Your task to perform on an android device: Open Google Maps and go to "Timeline" Image 0: 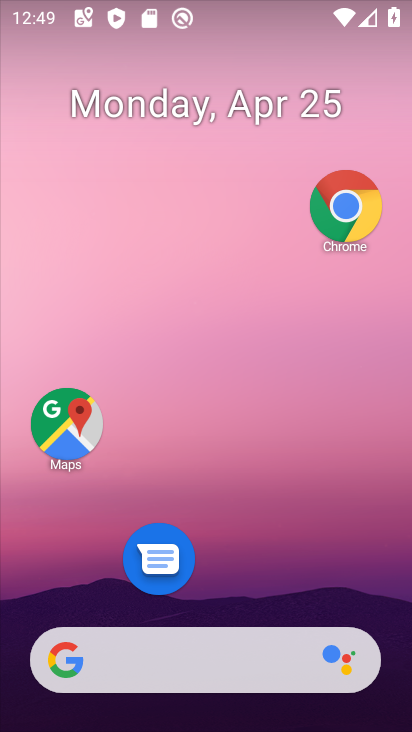
Step 0: click (71, 414)
Your task to perform on an android device: Open Google Maps and go to "Timeline" Image 1: 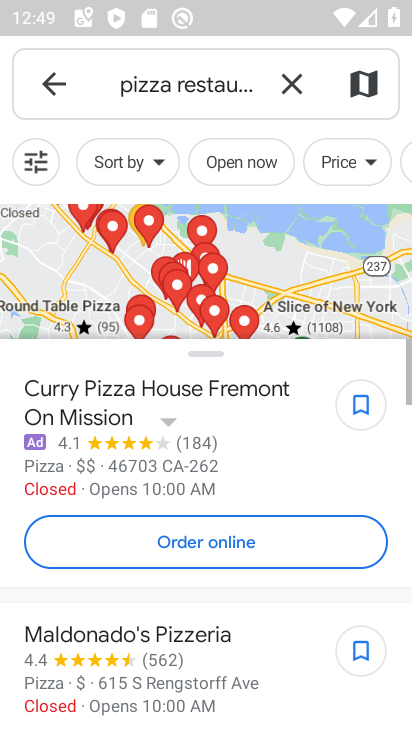
Step 1: click (52, 77)
Your task to perform on an android device: Open Google Maps and go to "Timeline" Image 2: 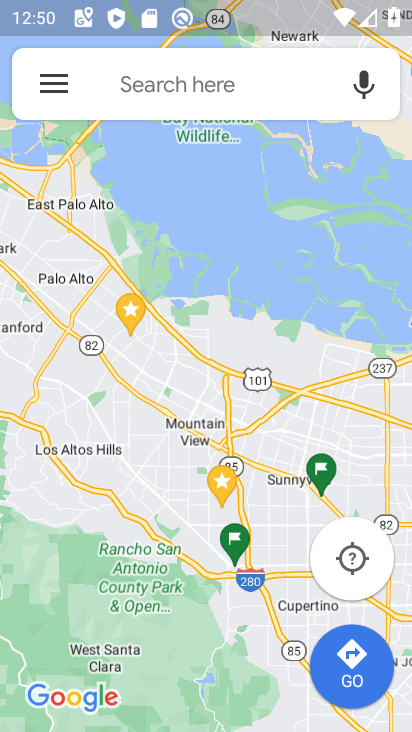
Step 2: click (52, 84)
Your task to perform on an android device: Open Google Maps and go to "Timeline" Image 3: 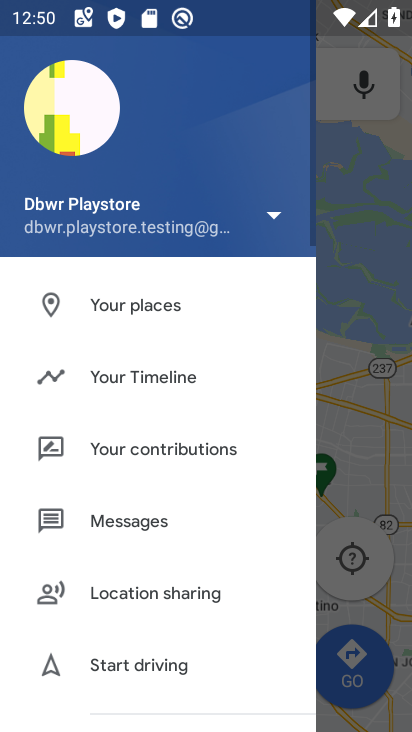
Step 3: click (164, 376)
Your task to perform on an android device: Open Google Maps and go to "Timeline" Image 4: 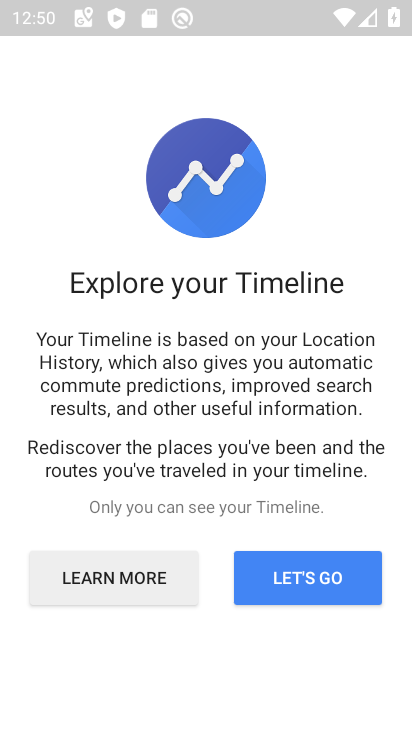
Step 4: click (308, 581)
Your task to perform on an android device: Open Google Maps and go to "Timeline" Image 5: 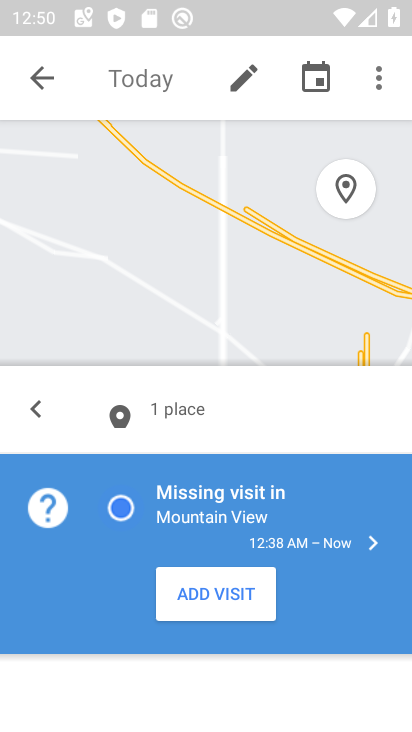
Step 5: task complete